Your task to perform on an android device: toggle notification dots Image 0: 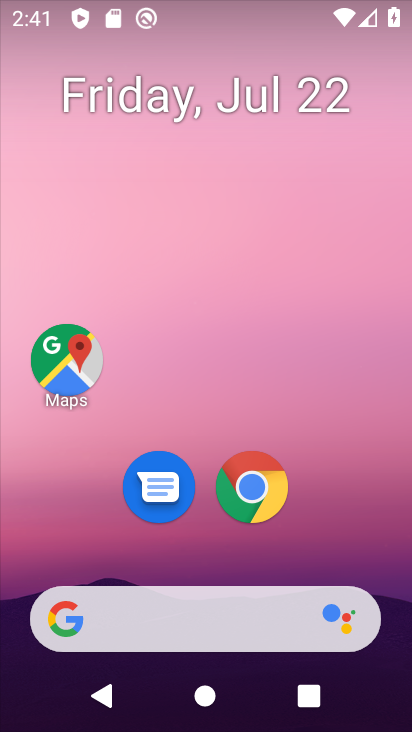
Step 0: drag from (203, 542) to (265, 60)
Your task to perform on an android device: toggle notification dots Image 1: 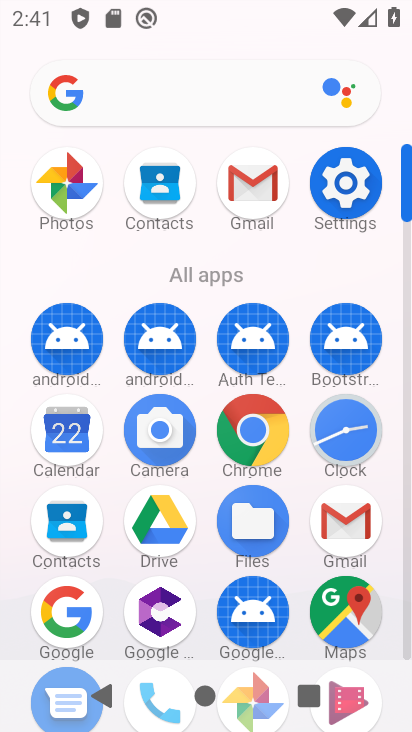
Step 1: click (345, 179)
Your task to perform on an android device: toggle notification dots Image 2: 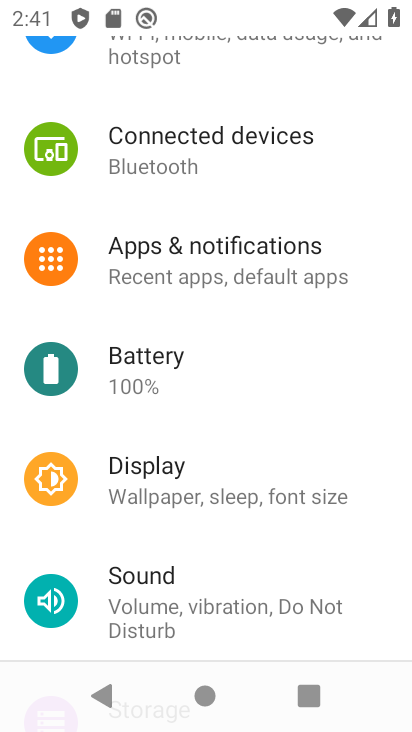
Step 2: click (206, 253)
Your task to perform on an android device: toggle notification dots Image 3: 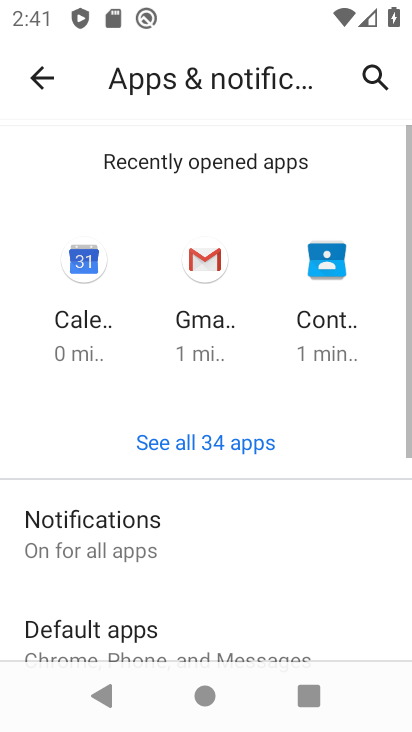
Step 3: click (129, 518)
Your task to perform on an android device: toggle notification dots Image 4: 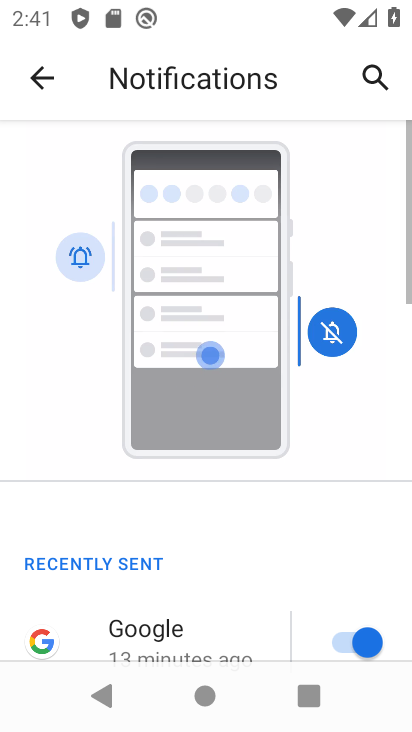
Step 4: drag from (156, 552) to (242, 66)
Your task to perform on an android device: toggle notification dots Image 5: 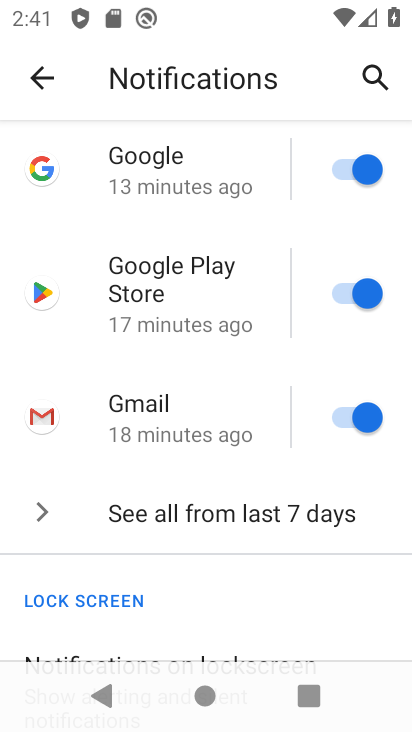
Step 5: drag from (131, 634) to (233, 107)
Your task to perform on an android device: toggle notification dots Image 6: 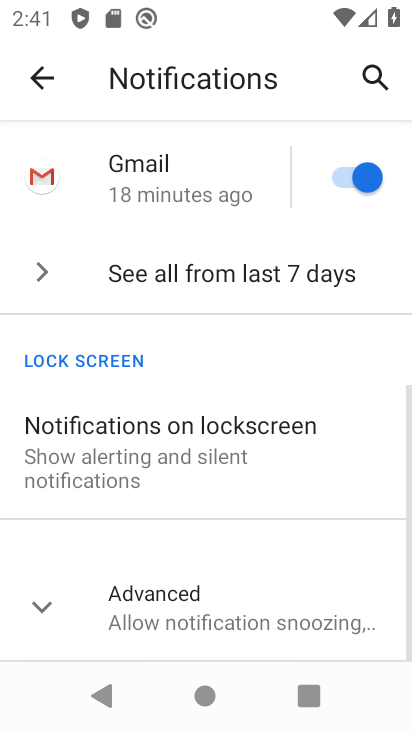
Step 6: click (130, 616)
Your task to perform on an android device: toggle notification dots Image 7: 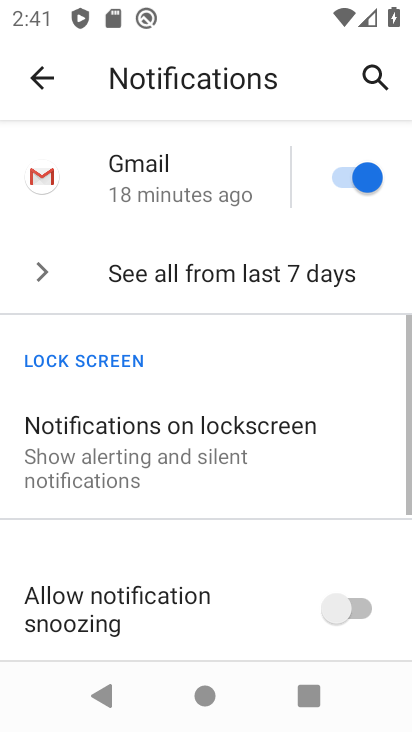
Step 7: drag from (217, 544) to (261, 86)
Your task to perform on an android device: toggle notification dots Image 8: 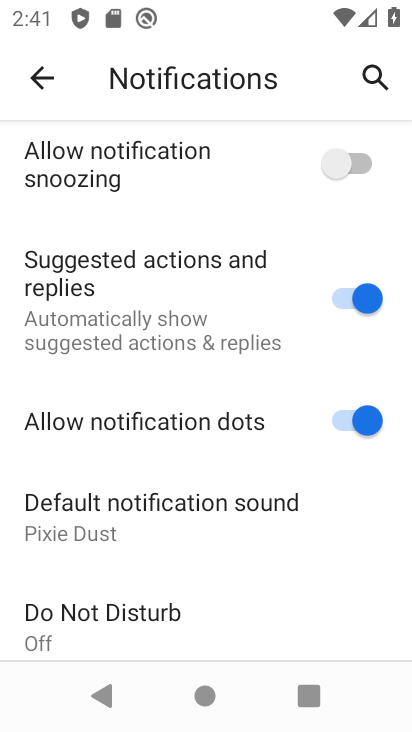
Step 8: click (359, 413)
Your task to perform on an android device: toggle notification dots Image 9: 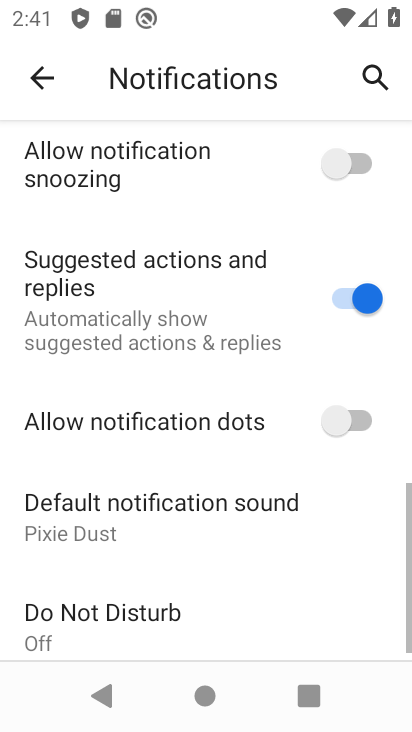
Step 9: task complete